Your task to perform on an android device: Add bose soundlink to the cart on costco.com Image 0: 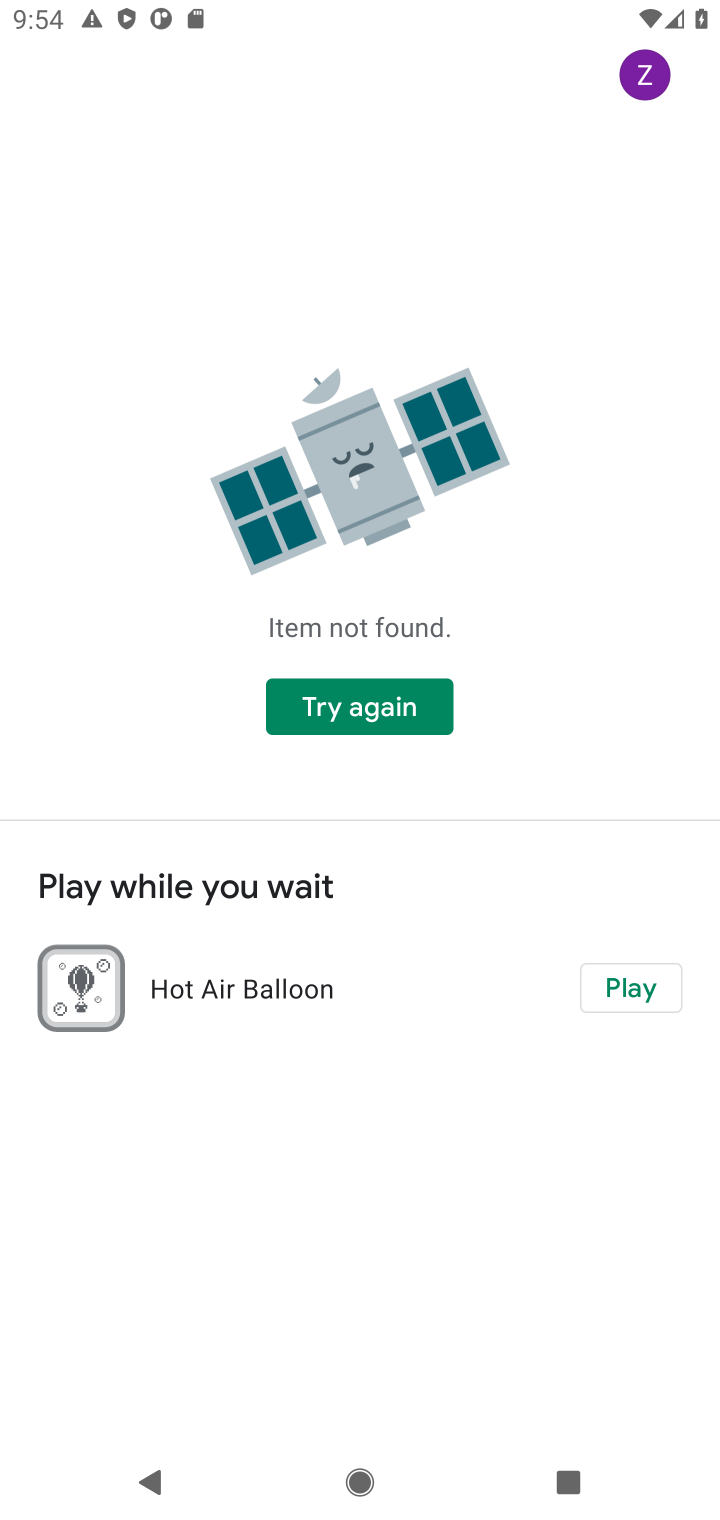
Step 0: press home button
Your task to perform on an android device: Add bose soundlink to the cart on costco.com Image 1: 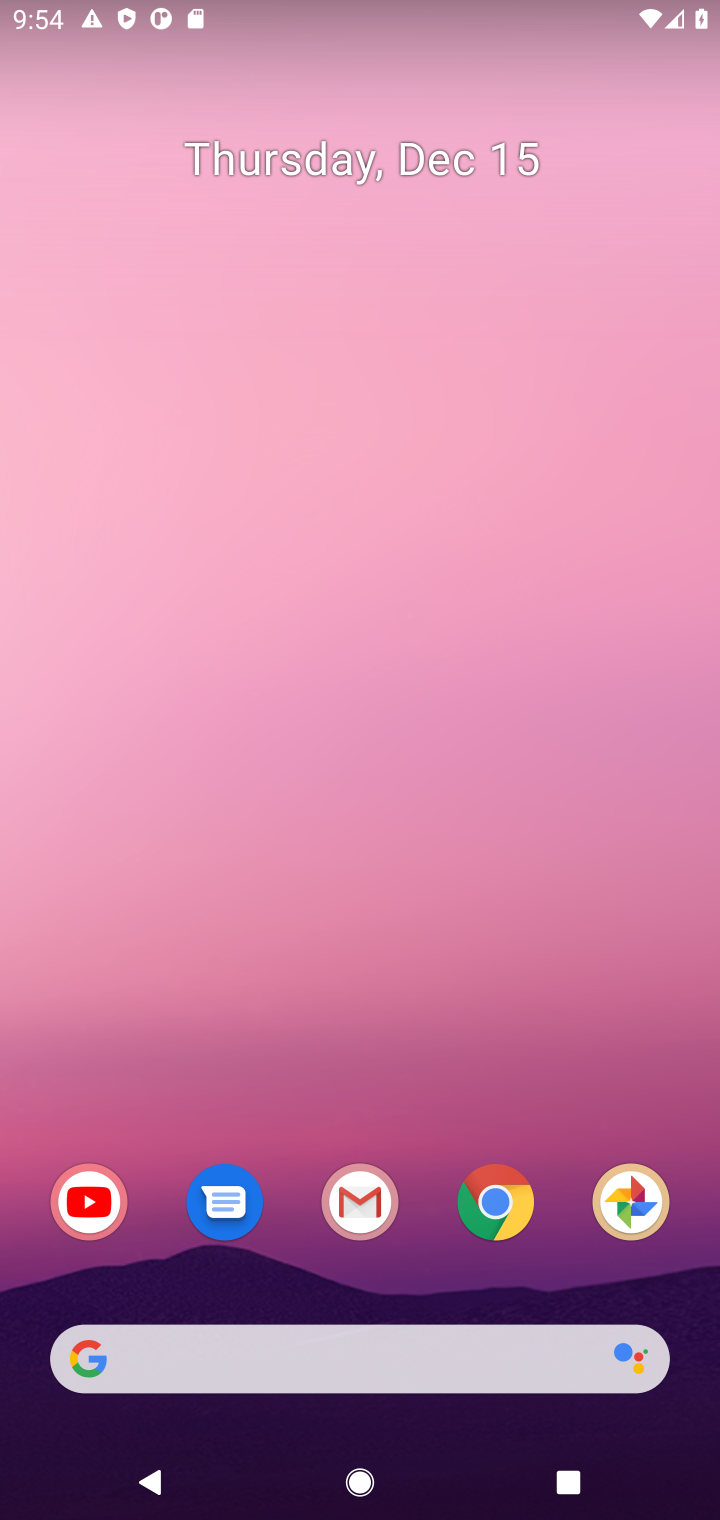
Step 1: click (499, 1214)
Your task to perform on an android device: Add bose soundlink to the cart on costco.com Image 2: 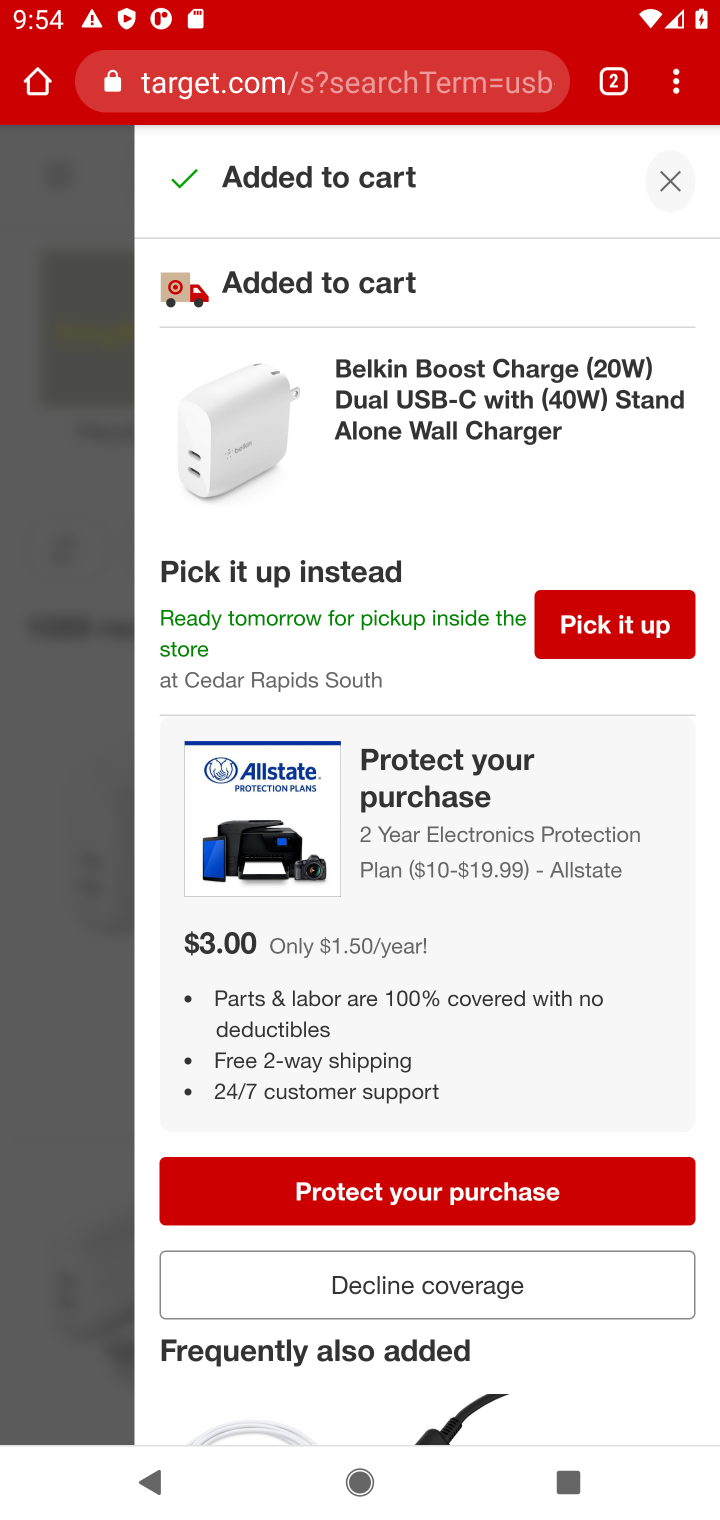
Step 2: click (295, 88)
Your task to perform on an android device: Add bose soundlink to the cart on costco.com Image 3: 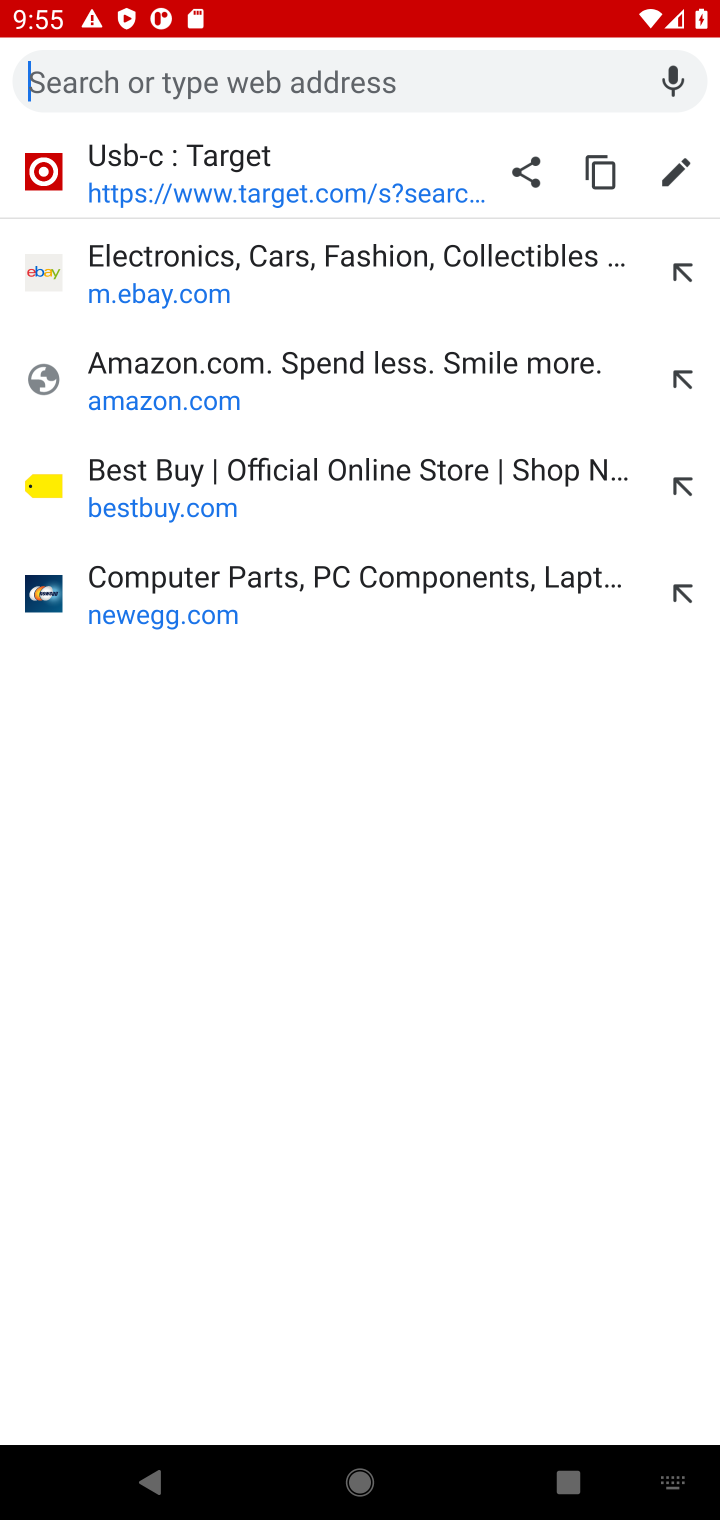
Step 3: type "costco.com"
Your task to perform on an android device: Add bose soundlink to the cart on costco.com Image 4: 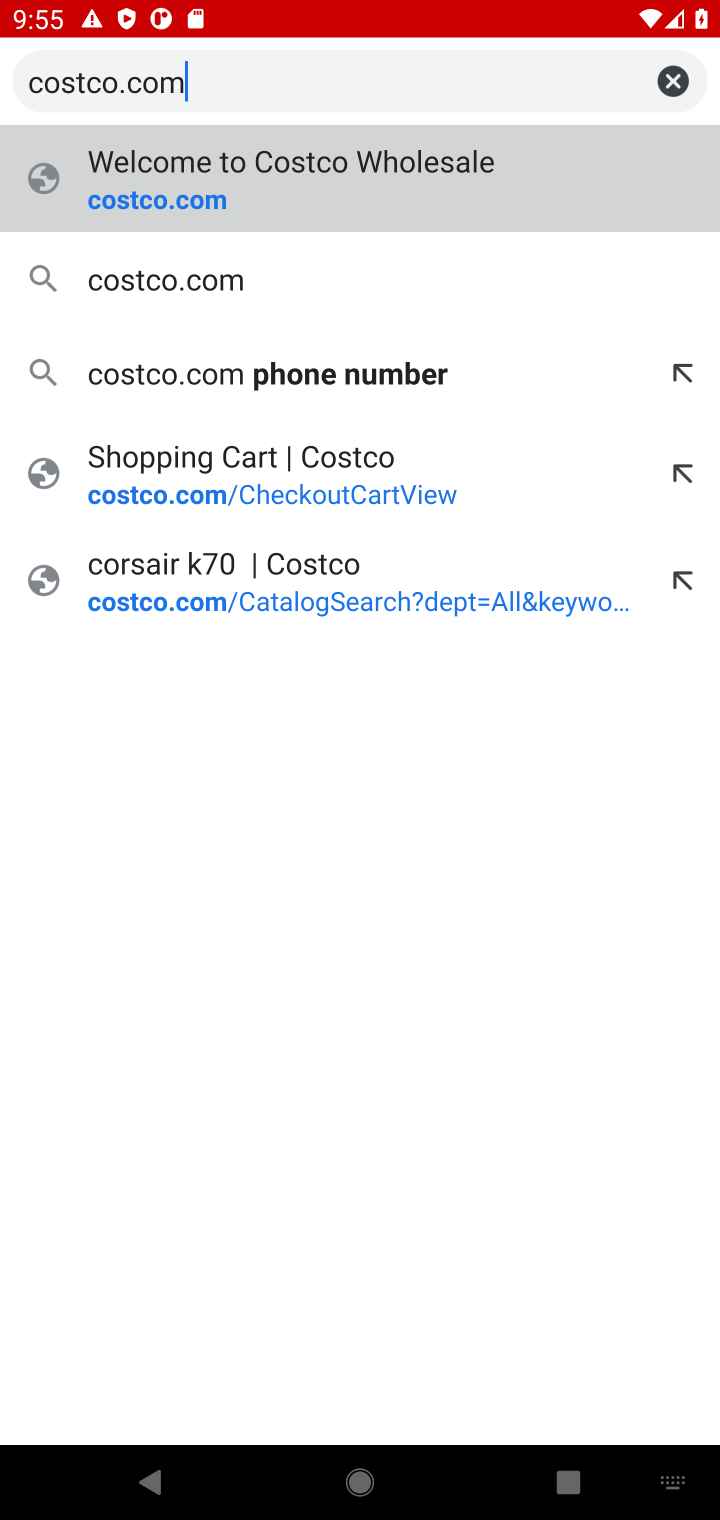
Step 4: click (119, 199)
Your task to perform on an android device: Add bose soundlink to the cart on costco.com Image 5: 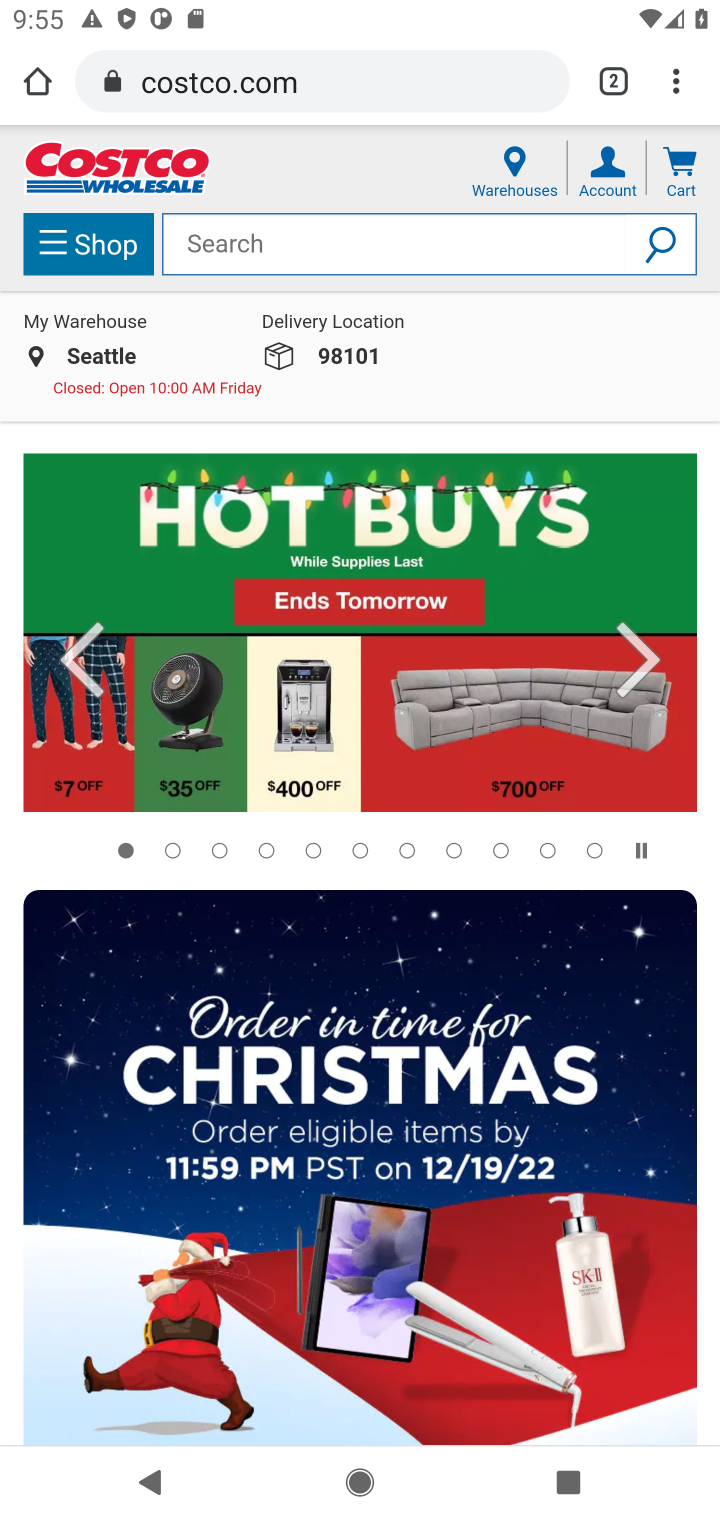
Step 5: click (245, 239)
Your task to perform on an android device: Add bose soundlink to the cart on costco.com Image 6: 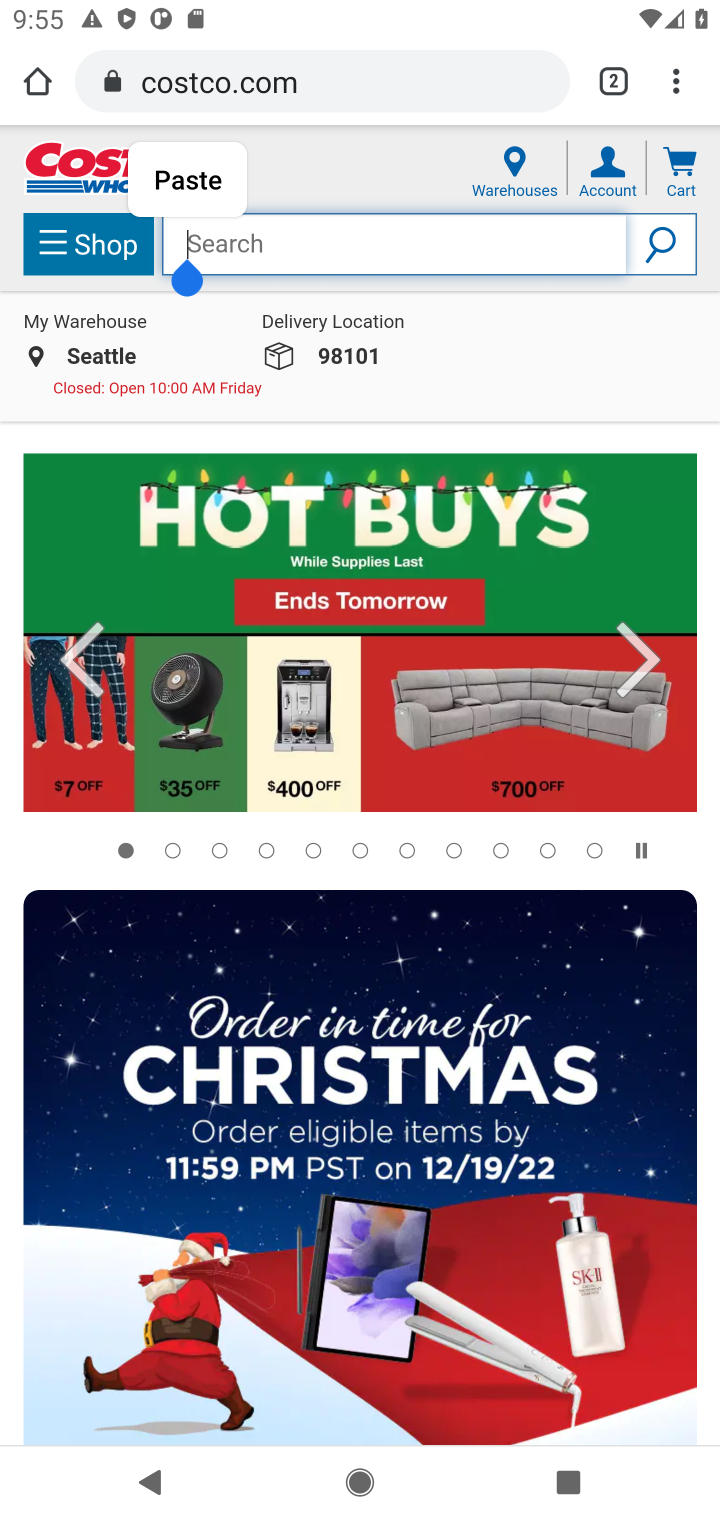
Step 6: type "bose soundlink"
Your task to perform on an android device: Add bose soundlink to the cart on costco.com Image 7: 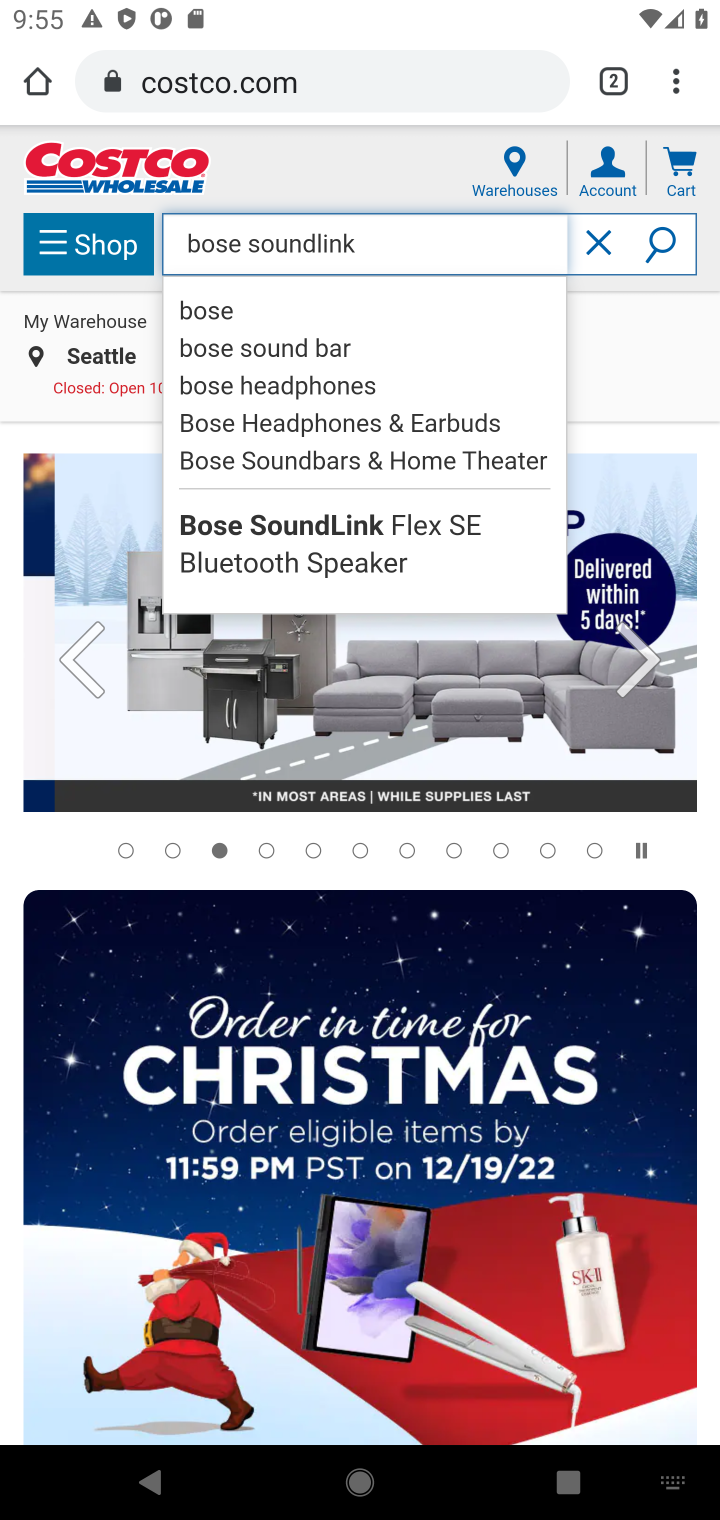
Step 7: click (663, 245)
Your task to perform on an android device: Add bose soundlink to the cart on costco.com Image 8: 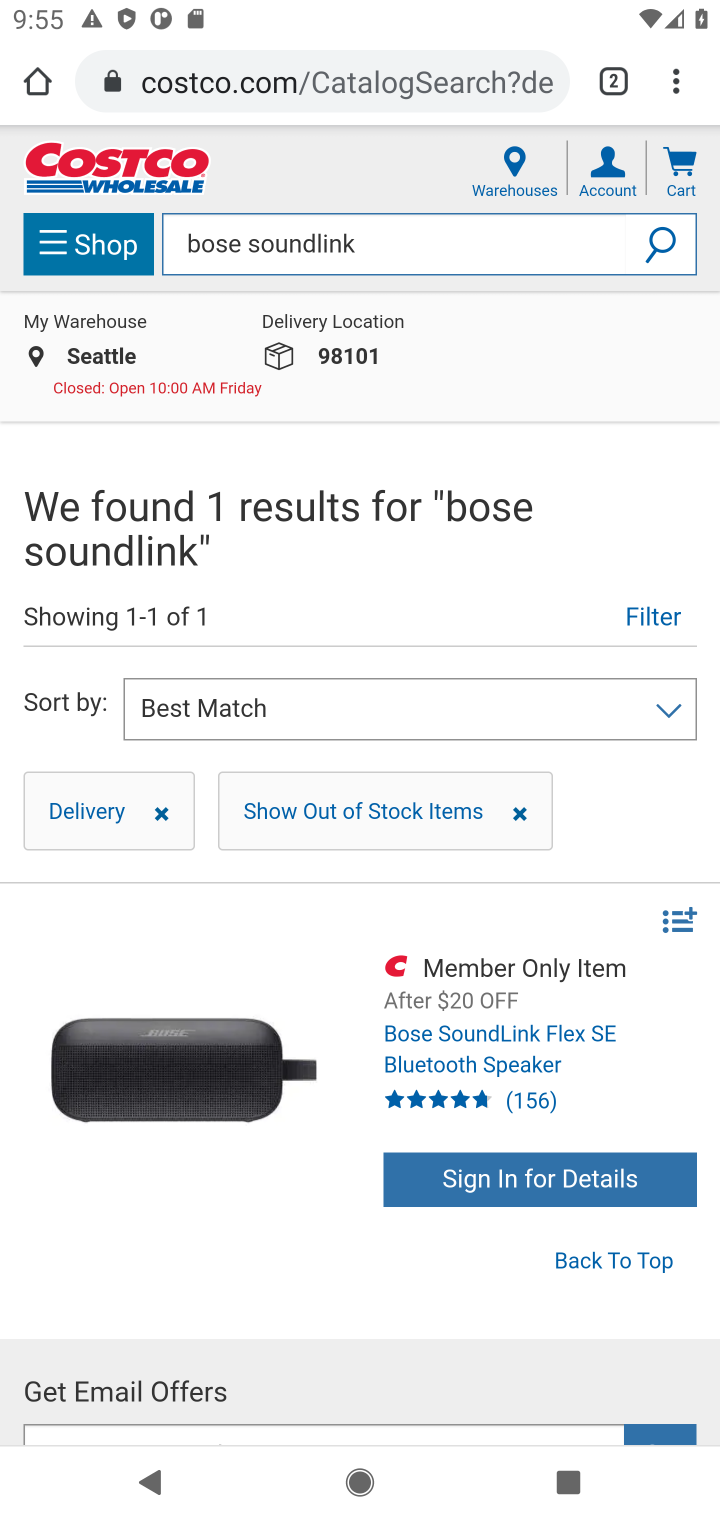
Step 8: drag from (414, 759) to (355, 513)
Your task to perform on an android device: Add bose soundlink to the cart on costco.com Image 9: 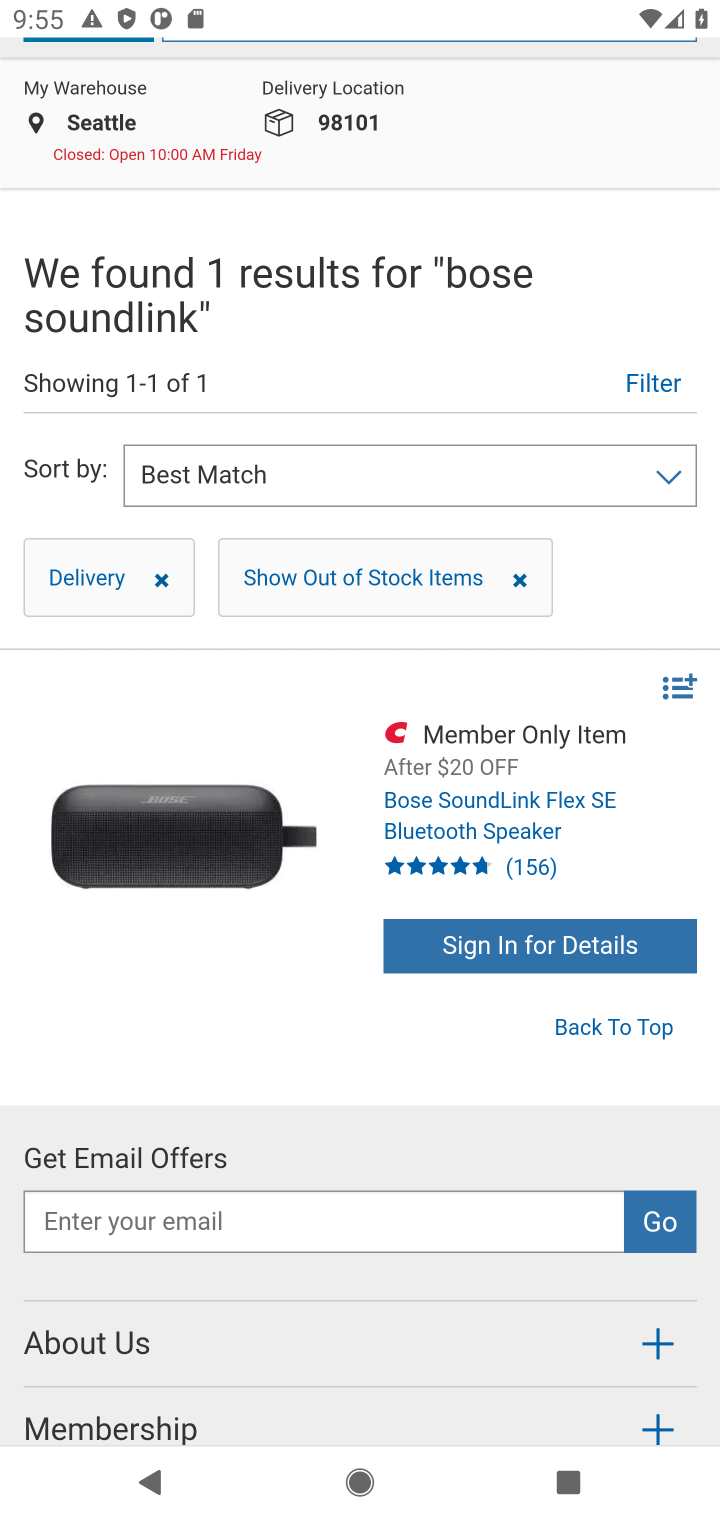
Step 9: click (536, 940)
Your task to perform on an android device: Add bose soundlink to the cart on costco.com Image 10: 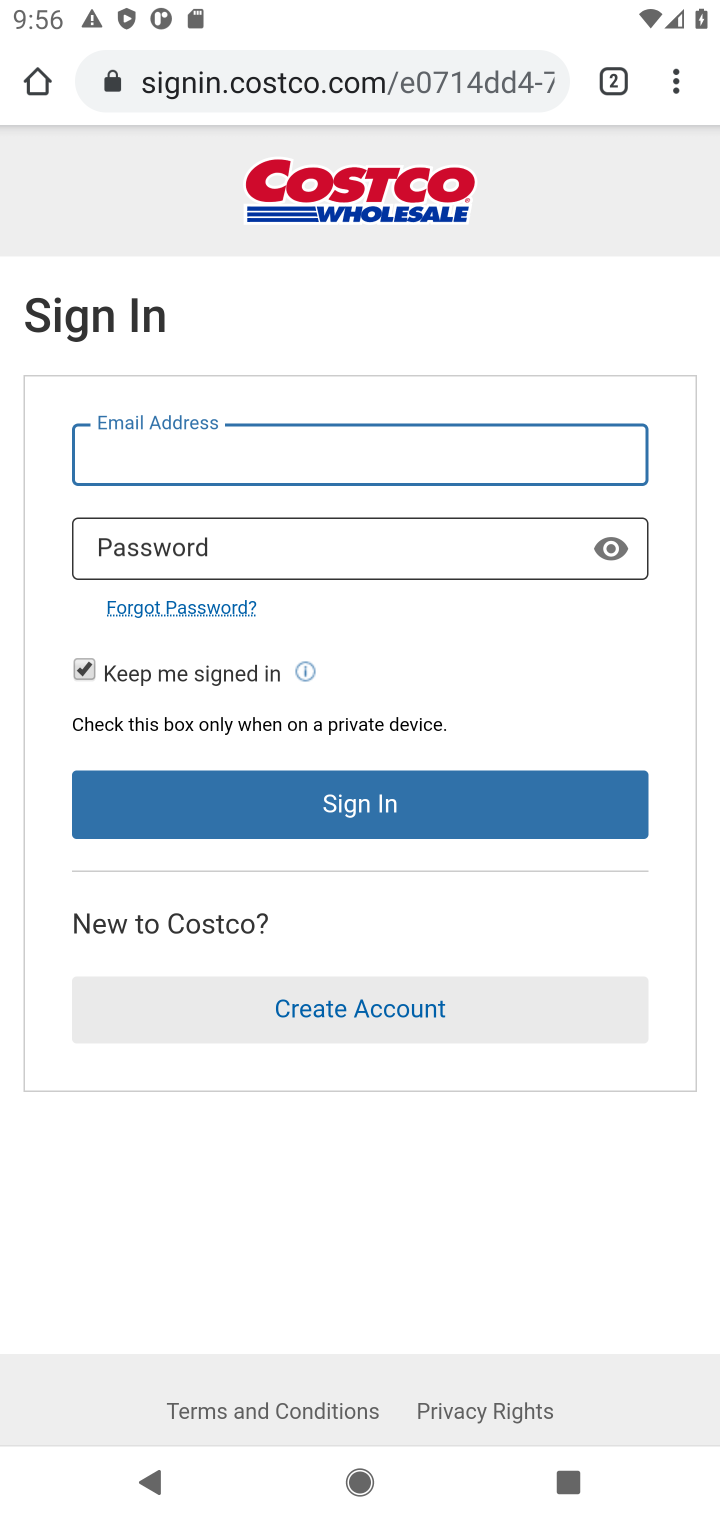
Step 10: task complete